Your task to perform on an android device: turn off translation in the chrome app Image 0: 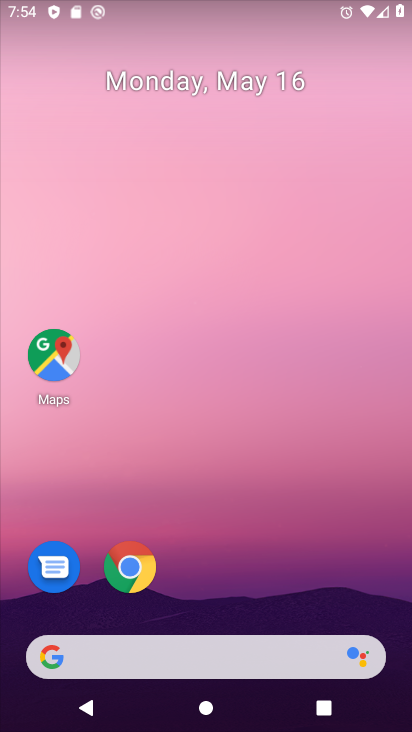
Step 0: click (148, 567)
Your task to perform on an android device: turn off translation in the chrome app Image 1: 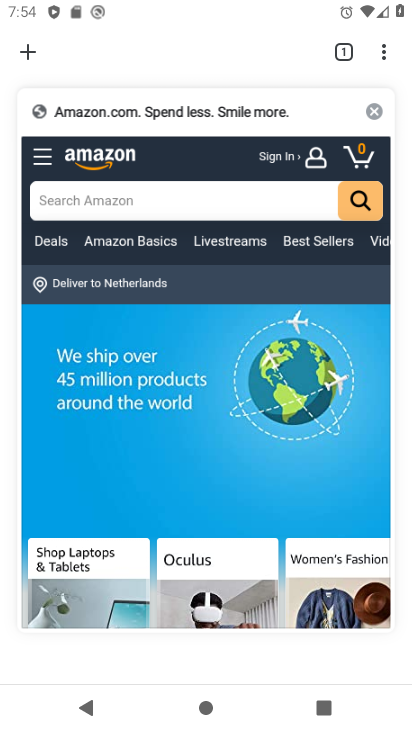
Step 1: click (384, 50)
Your task to perform on an android device: turn off translation in the chrome app Image 2: 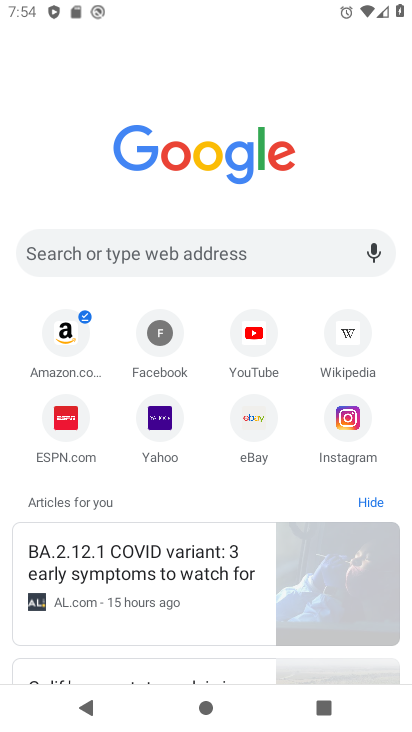
Step 2: click (385, 51)
Your task to perform on an android device: turn off translation in the chrome app Image 3: 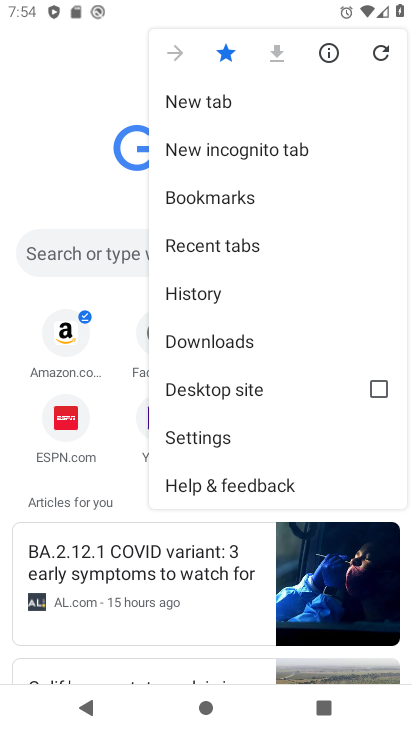
Step 3: click (228, 434)
Your task to perform on an android device: turn off translation in the chrome app Image 4: 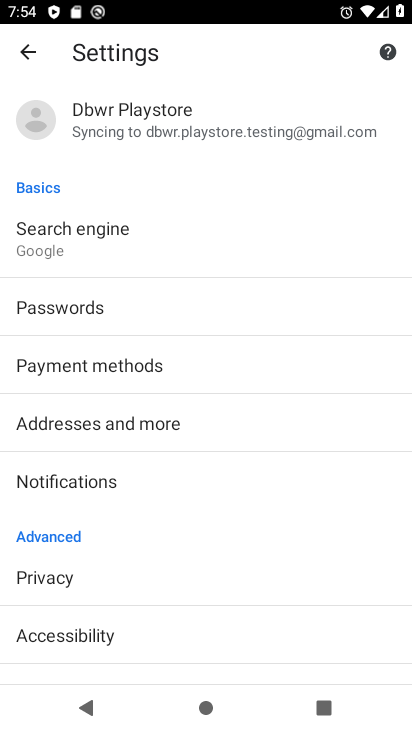
Step 4: drag from (133, 604) to (131, 234)
Your task to perform on an android device: turn off translation in the chrome app Image 5: 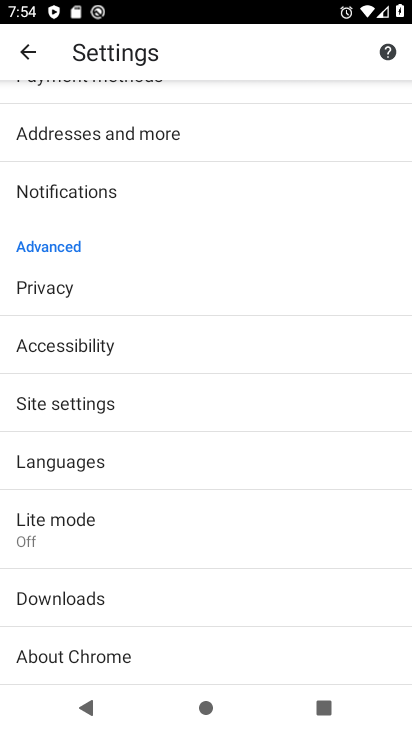
Step 5: click (51, 459)
Your task to perform on an android device: turn off translation in the chrome app Image 6: 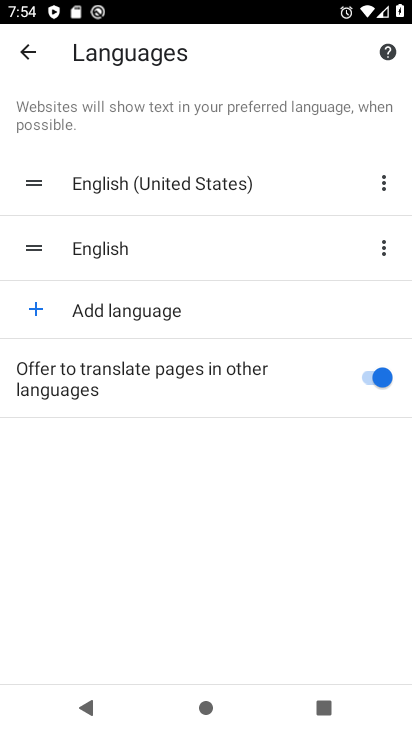
Step 6: click (376, 371)
Your task to perform on an android device: turn off translation in the chrome app Image 7: 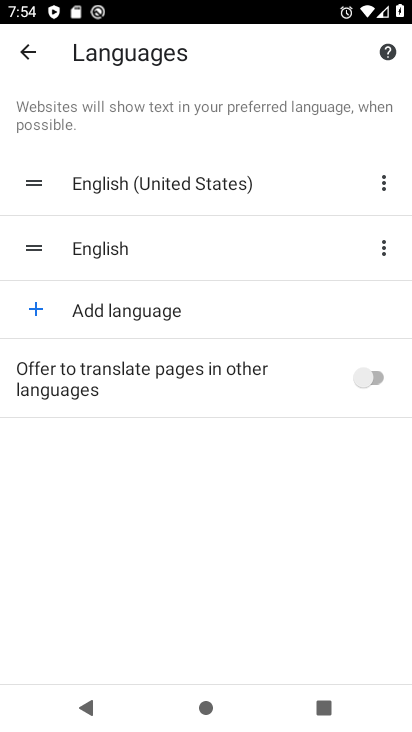
Step 7: task complete